Your task to perform on an android device: Open the map Image 0: 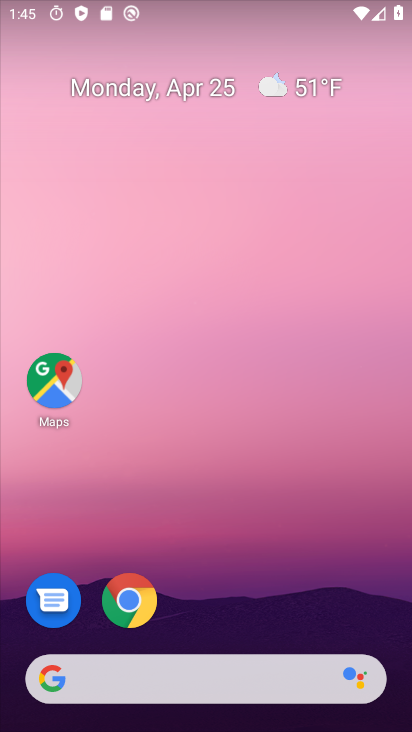
Step 0: drag from (195, 579) to (242, 207)
Your task to perform on an android device: Open the map Image 1: 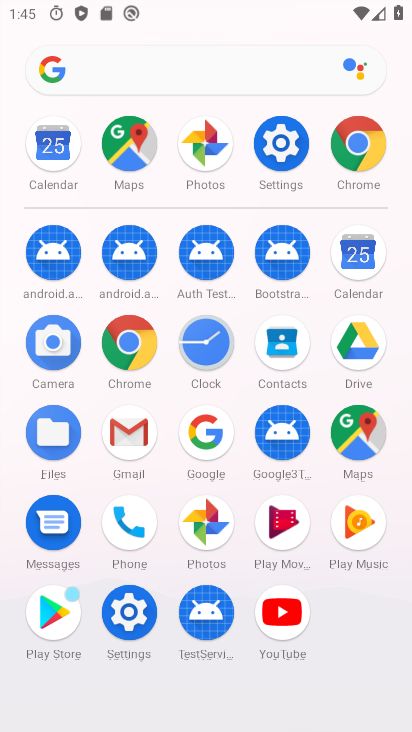
Step 1: click (130, 148)
Your task to perform on an android device: Open the map Image 2: 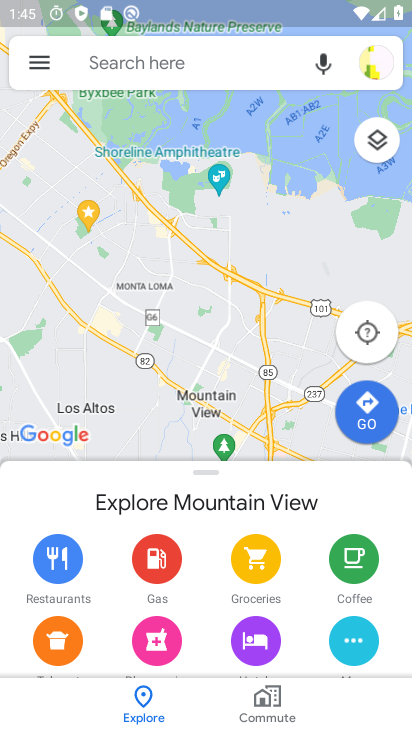
Step 2: task complete